Your task to perform on an android device: Go to network settings Image 0: 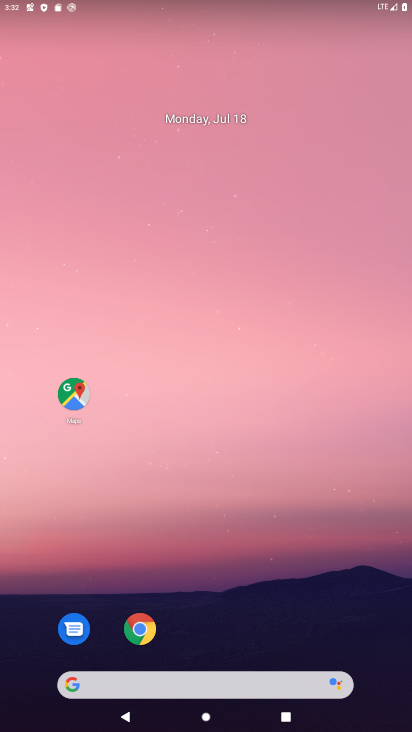
Step 0: drag from (234, 630) to (248, 224)
Your task to perform on an android device: Go to network settings Image 1: 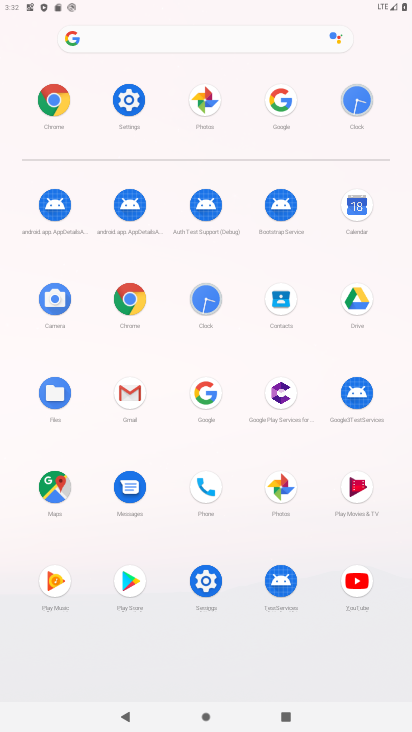
Step 1: click (137, 103)
Your task to perform on an android device: Go to network settings Image 2: 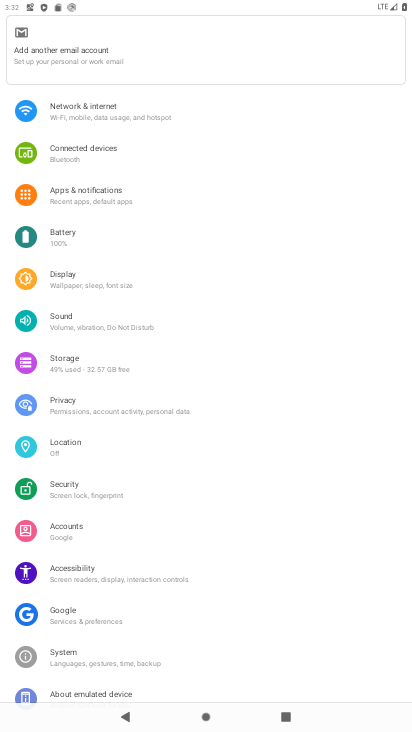
Step 2: click (108, 114)
Your task to perform on an android device: Go to network settings Image 3: 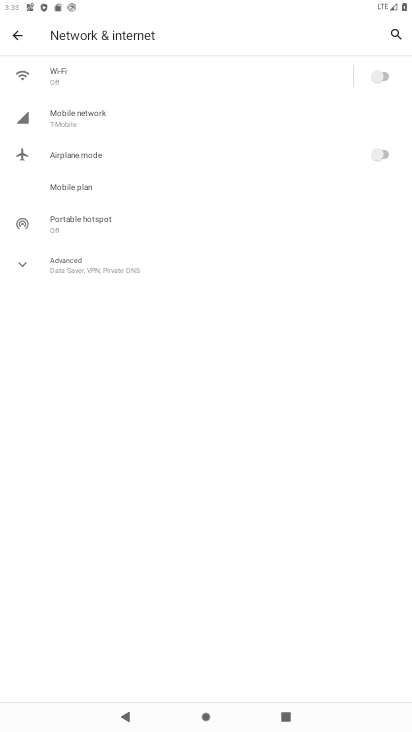
Step 3: task complete